Your task to perform on an android device: Open location settings Image 0: 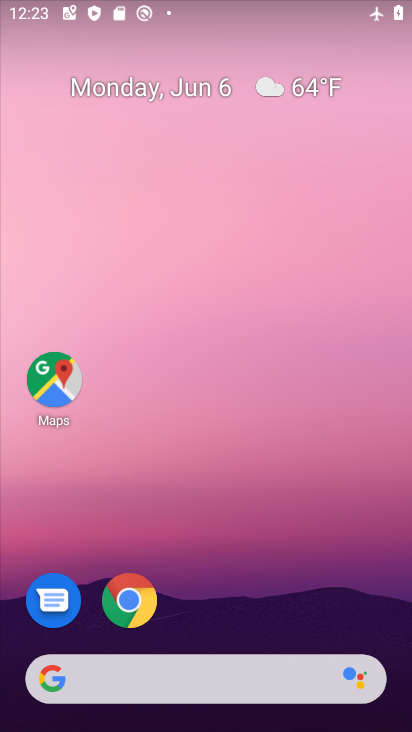
Step 0: drag from (396, 663) to (314, 1)
Your task to perform on an android device: Open location settings Image 1: 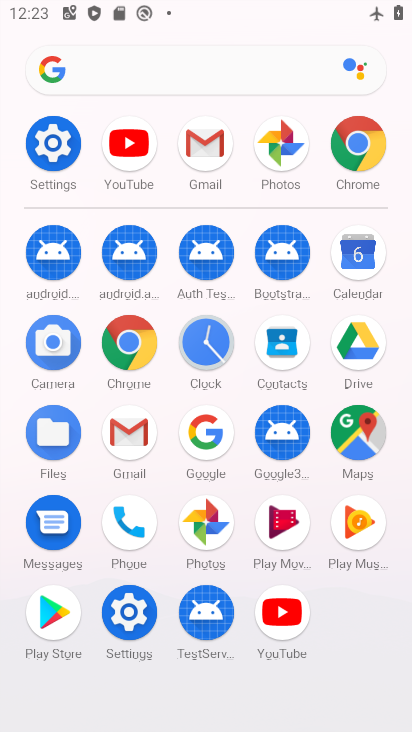
Step 1: click (41, 141)
Your task to perform on an android device: Open location settings Image 2: 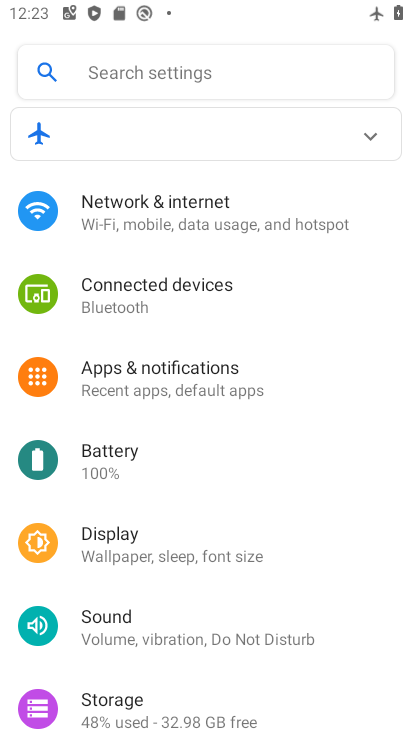
Step 2: drag from (210, 677) to (179, 306)
Your task to perform on an android device: Open location settings Image 3: 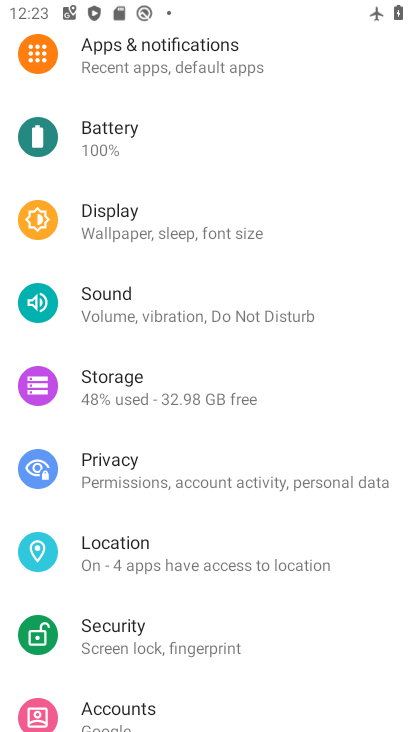
Step 3: click (107, 551)
Your task to perform on an android device: Open location settings Image 4: 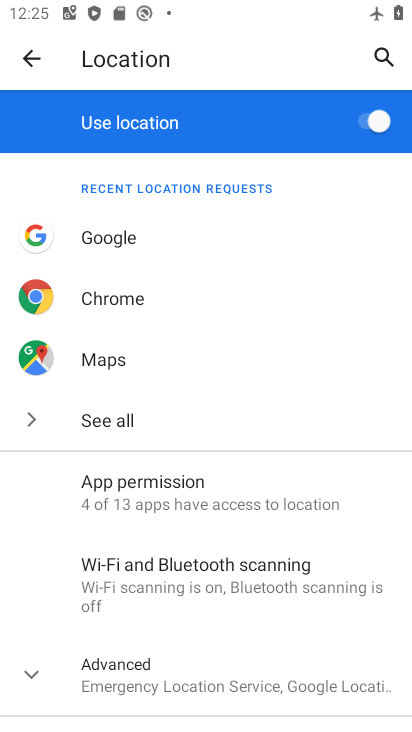
Step 4: drag from (154, 655) to (140, 248)
Your task to perform on an android device: Open location settings Image 5: 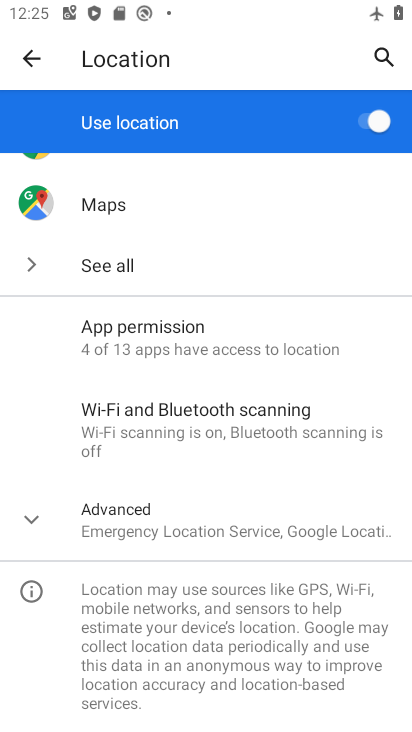
Step 5: click (20, 524)
Your task to perform on an android device: Open location settings Image 6: 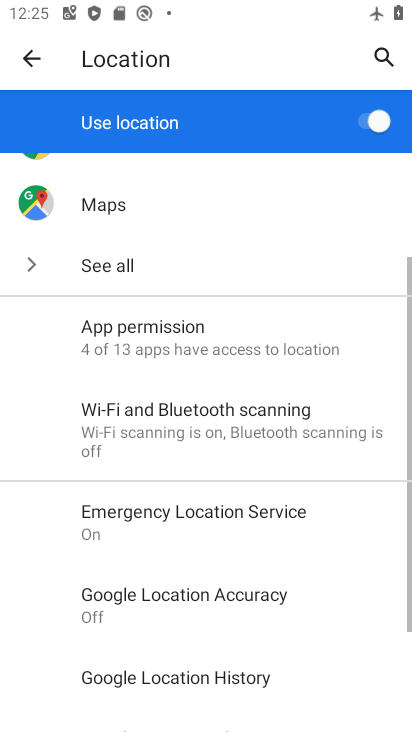
Step 6: task complete